Your task to perform on an android device: visit the assistant section in the google photos Image 0: 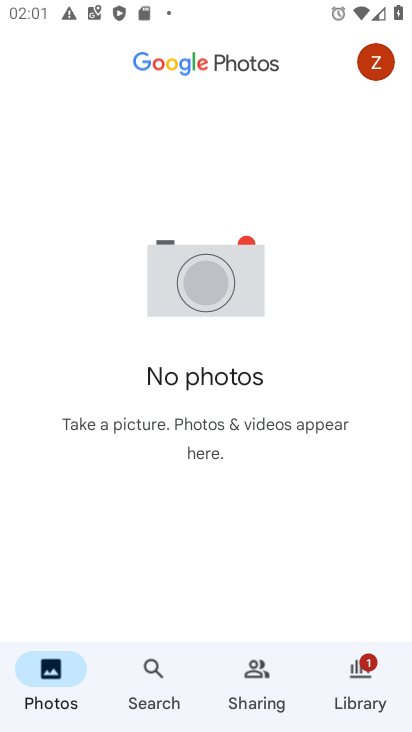
Step 0: click (164, 685)
Your task to perform on an android device: visit the assistant section in the google photos Image 1: 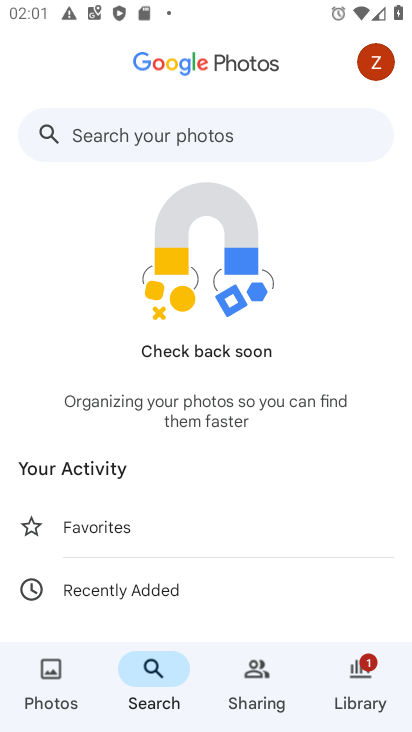
Step 1: task complete